Your task to perform on an android device: open app "PUBG MOBILE" (install if not already installed) and go to login screen Image 0: 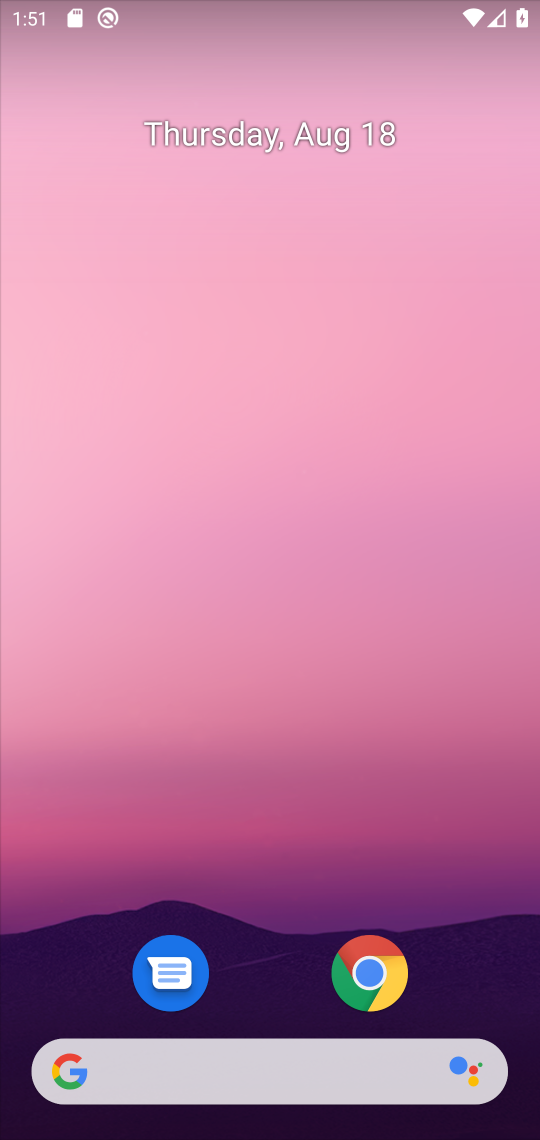
Step 0: drag from (267, 1028) to (285, 93)
Your task to perform on an android device: open app "PUBG MOBILE" (install if not already installed) and go to login screen Image 1: 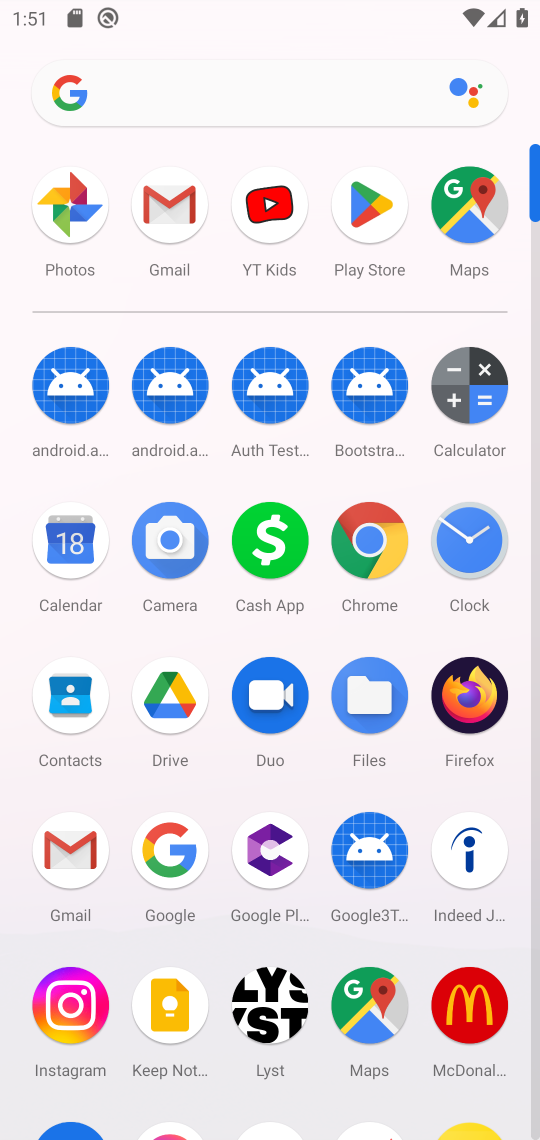
Step 1: click (365, 228)
Your task to perform on an android device: open app "PUBG MOBILE" (install if not already installed) and go to login screen Image 2: 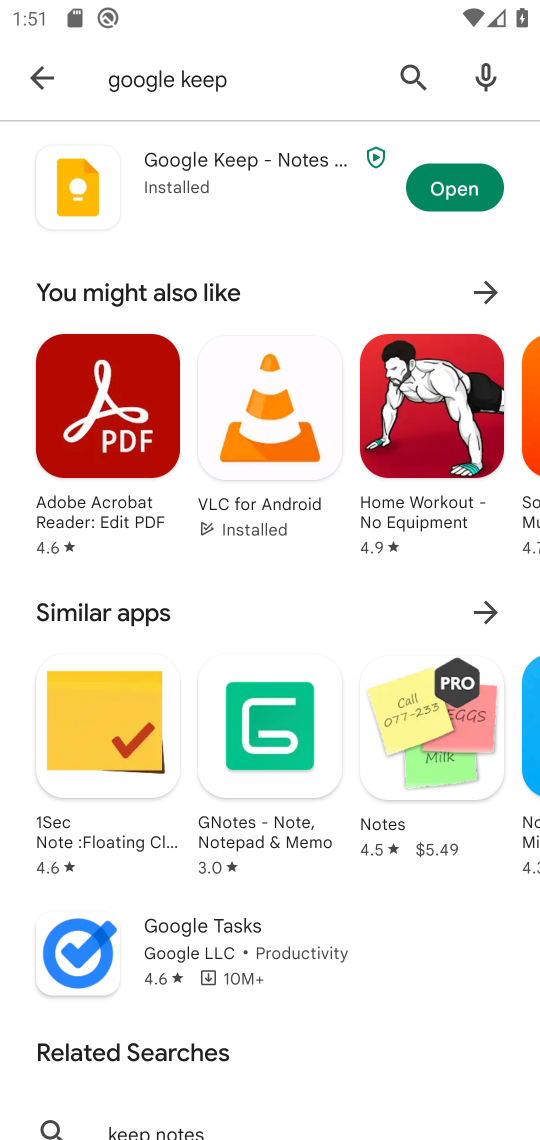
Step 2: click (421, 92)
Your task to perform on an android device: open app "PUBG MOBILE" (install if not already installed) and go to login screen Image 3: 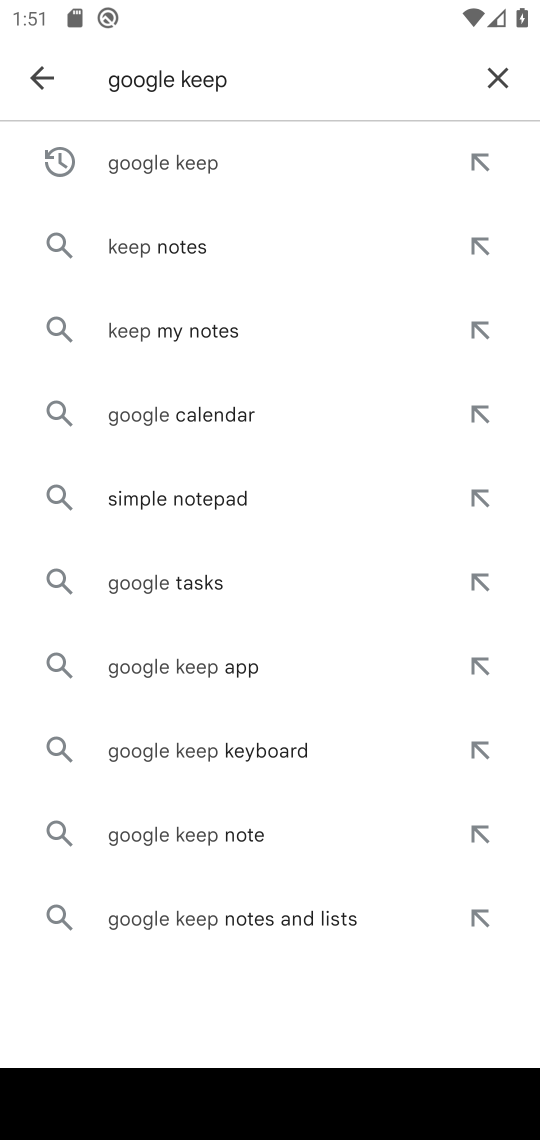
Step 3: click (497, 81)
Your task to perform on an android device: open app "PUBG MOBILE" (install if not already installed) and go to login screen Image 4: 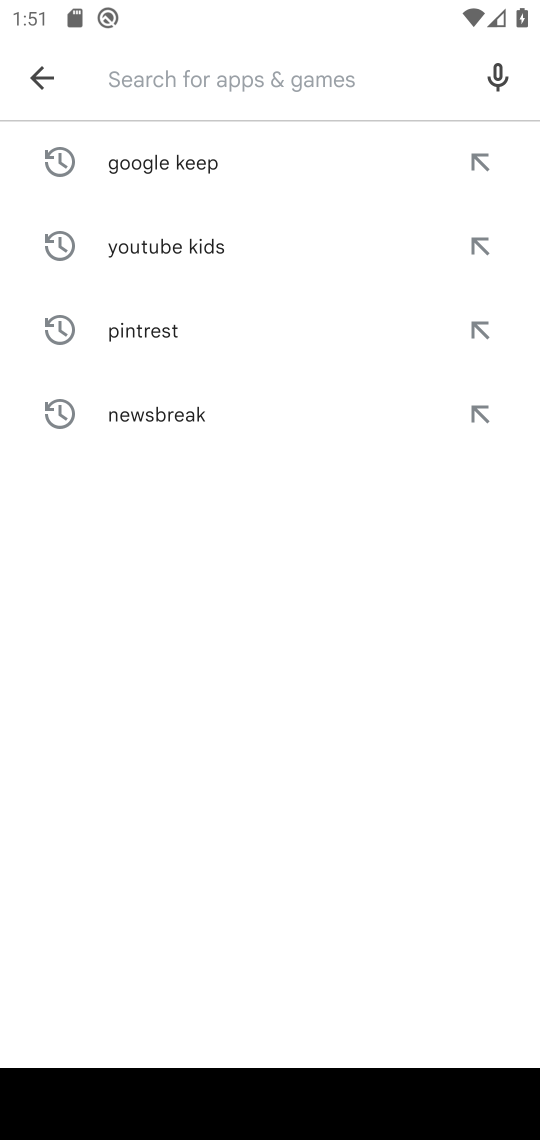
Step 4: type "pubg moble"
Your task to perform on an android device: open app "PUBG MOBILE" (install if not already installed) and go to login screen Image 5: 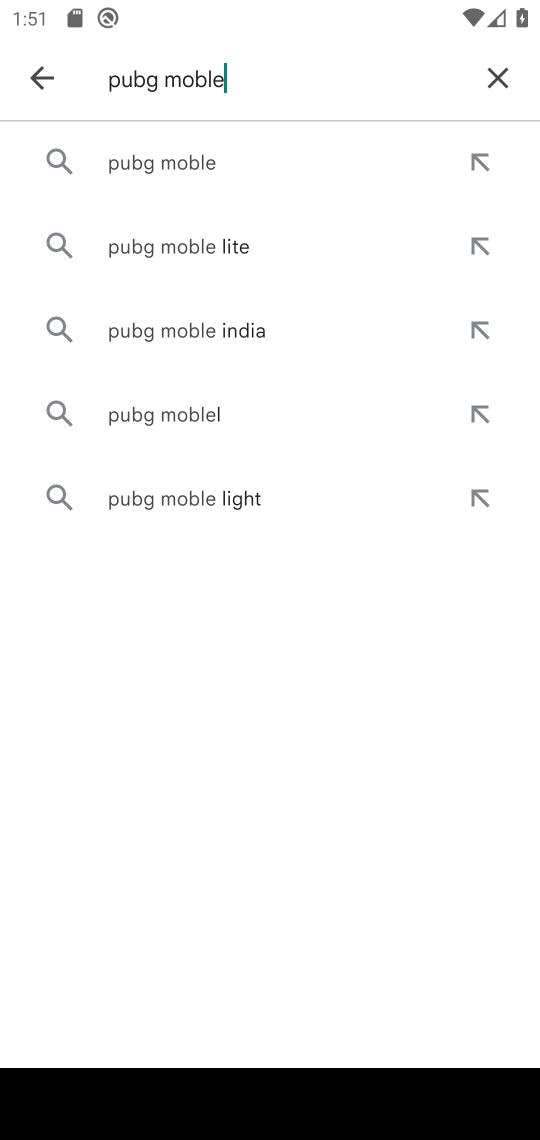
Step 5: click (340, 172)
Your task to perform on an android device: open app "PUBG MOBILE" (install if not already installed) and go to login screen Image 6: 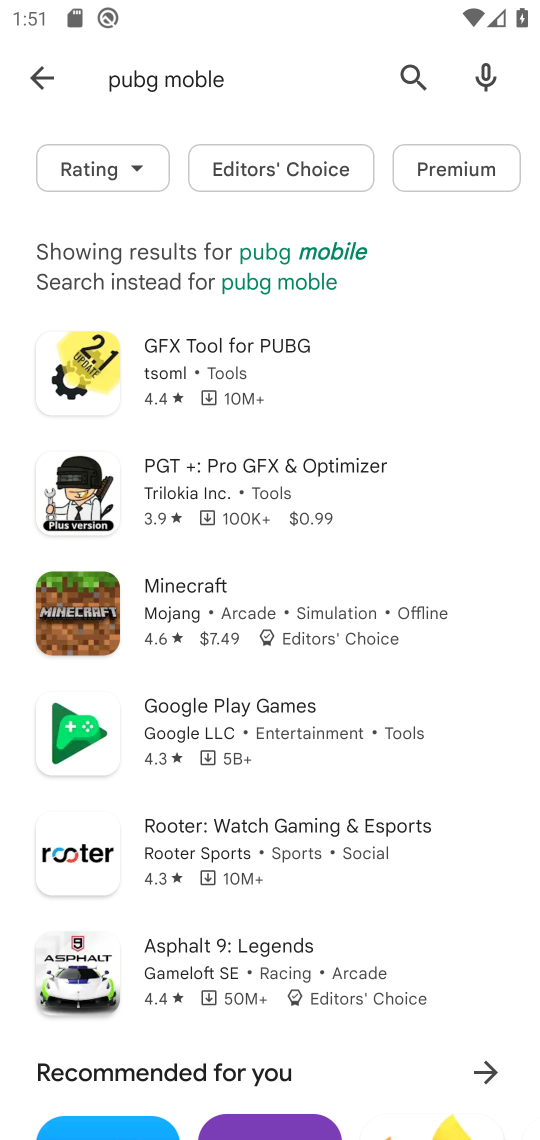
Step 6: task complete